Your task to perform on an android device: clear all cookies in the chrome app Image 0: 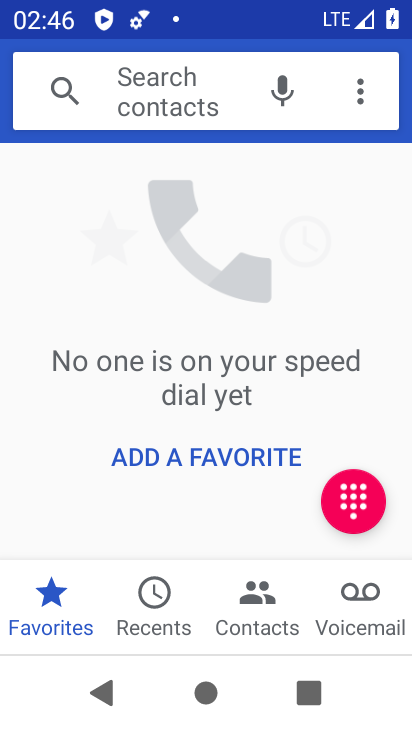
Step 0: press home button
Your task to perform on an android device: clear all cookies in the chrome app Image 1: 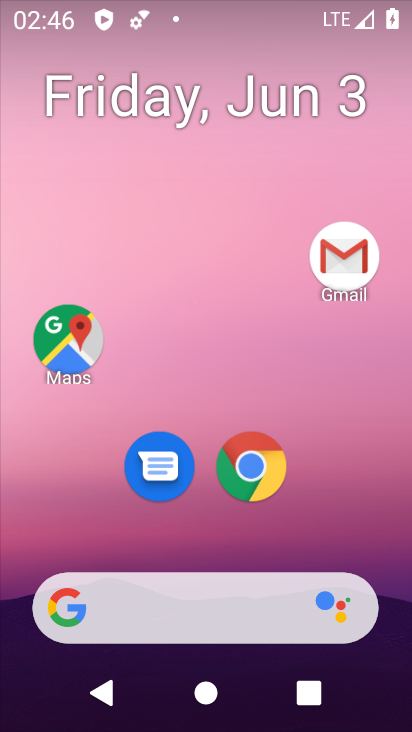
Step 1: click (253, 471)
Your task to perform on an android device: clear all cookies in the chrome app Image 2: 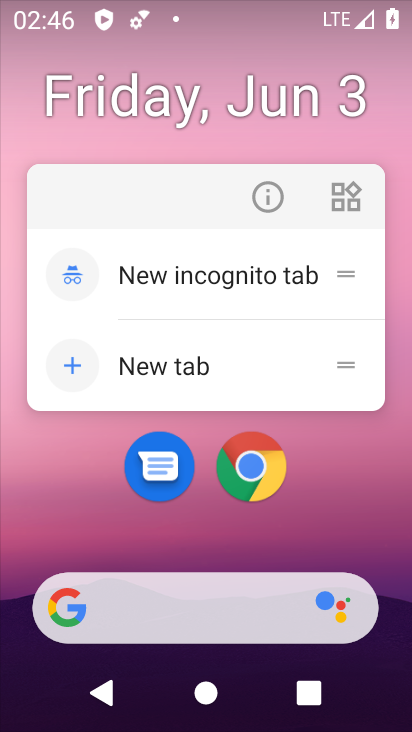
Step 2: click (248, 481)
Your task to perform on an android device: clear all cookies in the chrome app Image 3: 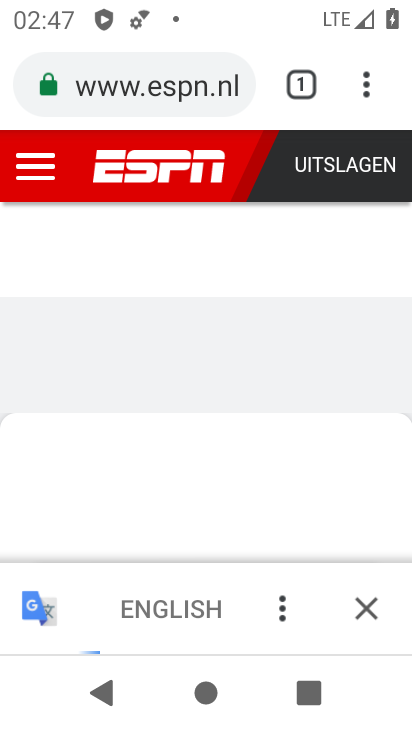
Step 3: click (371, 94)
Your task to perform on an android device: clear all cookies in the chrome app Image 4: 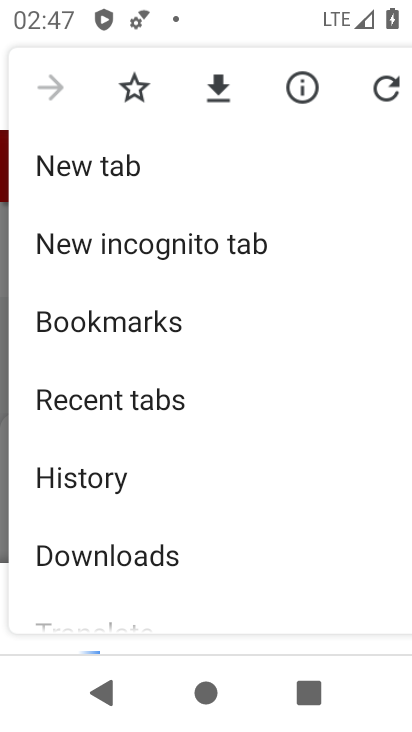
Step 4: drag from (172, 500) to (168, 149)
Your task to perform on an android device: clear all cookies in the chrome app Image 5: 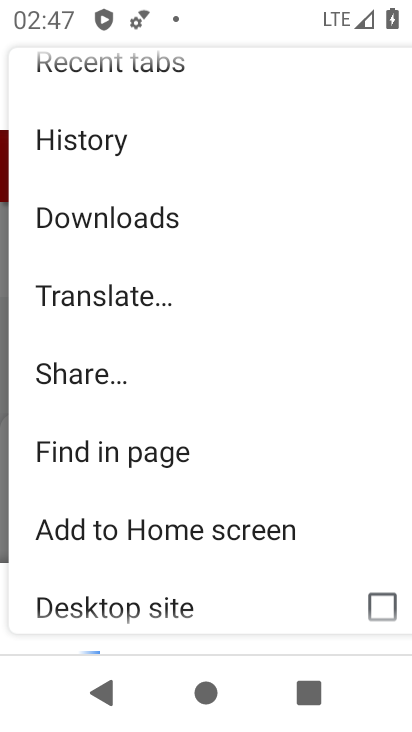
Step 5: click (85, 152)
Your task to perform on an android device: clear all cookies in the chrome app Image 6: 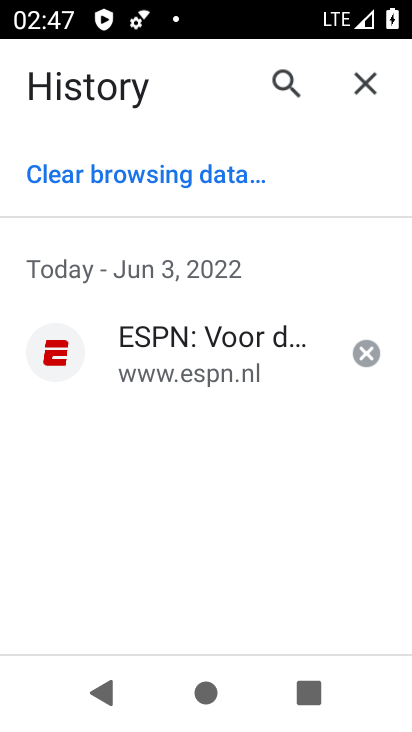
Step 6: click (170, 185)
Your task to perform on an android device: clear all cookies in the chrome app Image 7: 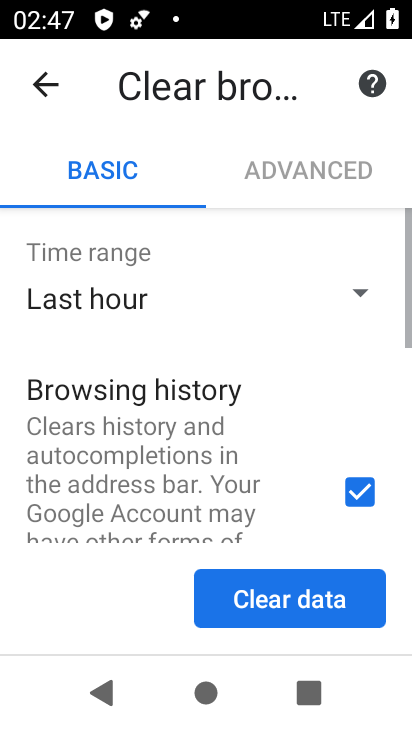
Step 7: drag from (183, 458) to (181, 269)
Your task to perform on an android device: clear all cookies in the chrome app Image 8: 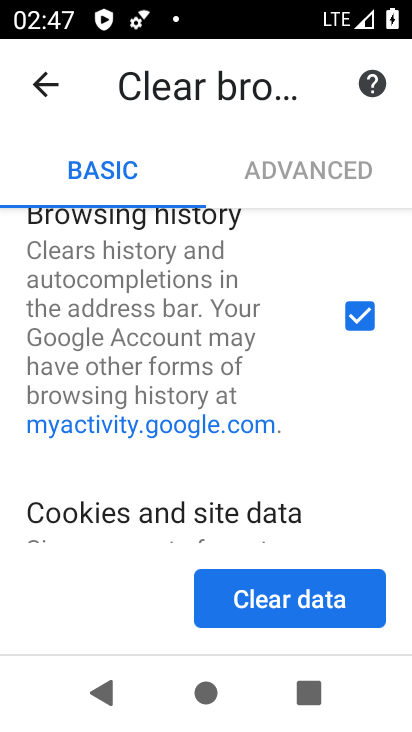
Step 8: drag from (228, 483) to (243, 366)
Your task to perform on an android device: clear all cookies in the chrome app Image 9: 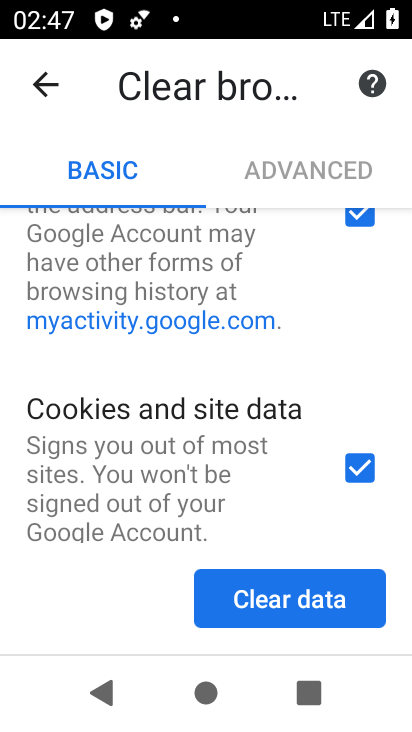
Step 9: click (361, 218)
Your task to perform on an android device: clear all cookies in the chrome app Image 10: 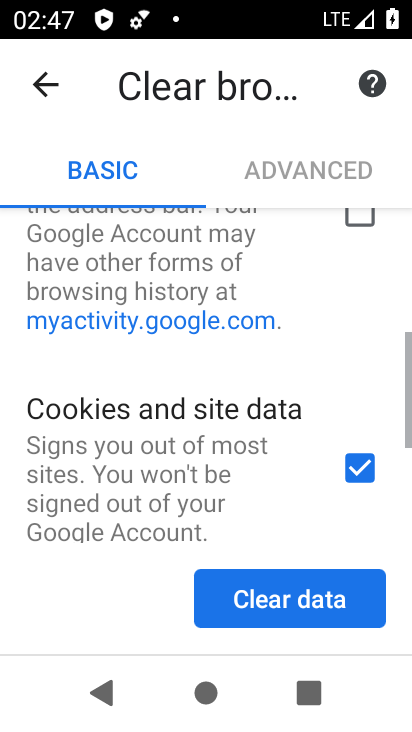
Step 10: drag from (266, 491) to (257, 367)
Your task to perform on an android device: clear all cookies in the chrome app Image 11: 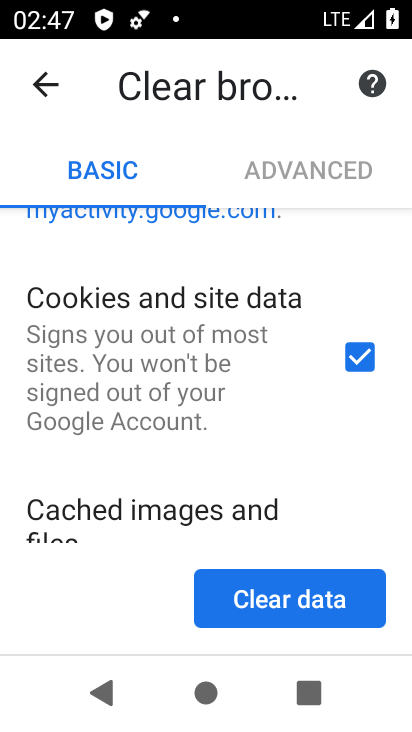
Step 11: drag from (289, 489) to (310, 312)
Your task to perform on an android device: clear all cookies in the chrome app Image 12: 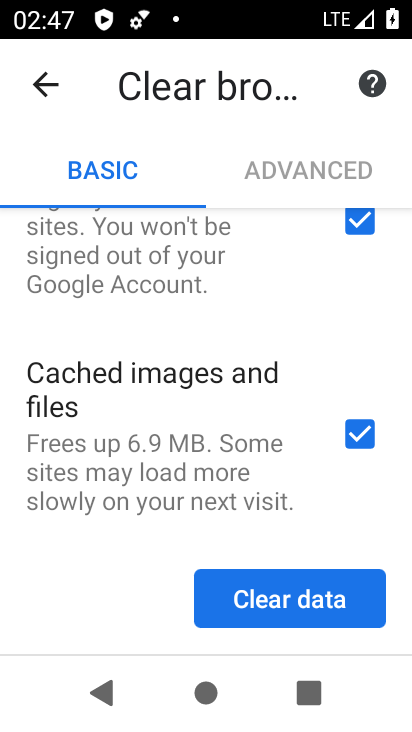
Step 12: click (360, 437)
Your task to perform on an android device: clear all cookies in the chrome app Image 13: 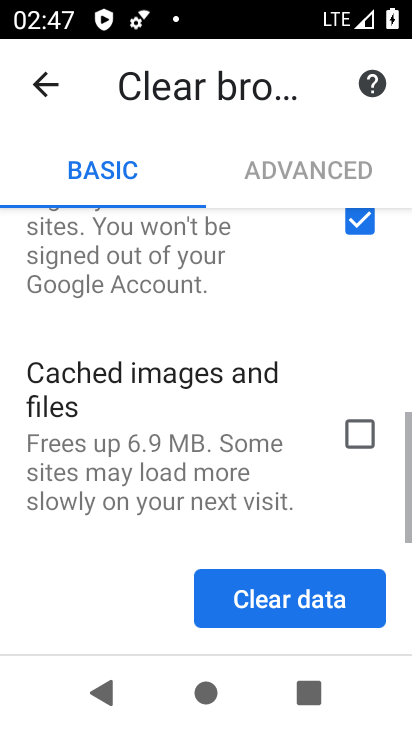
Step 13: click (273, 606)
Your task to perform on an android device: clear all cookies in the chrome app Image 14: 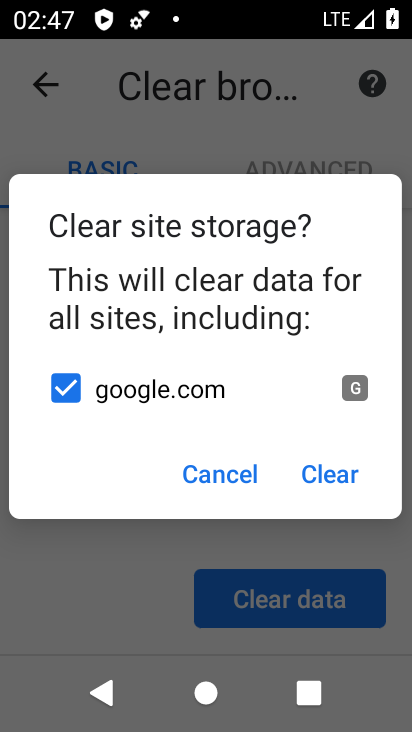
Step 14: click (335, 471)
Your task to perform on an android device: clear all cookies in the chrome app Image 15: 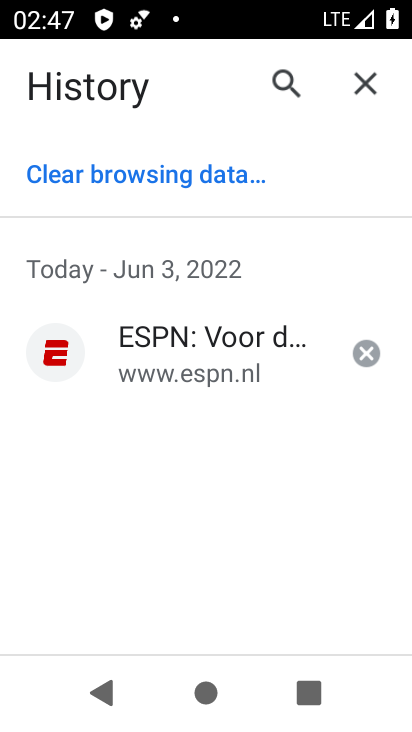
Step 15: task complete